Your task to perform on an android device: toggle notification dots Image 0: 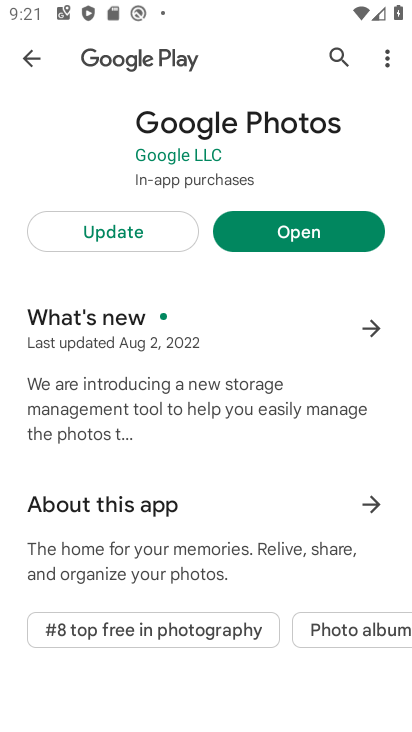
Step 0: click (133, 609)
Your task to perform on an android device: toggle notification dots Image 1: 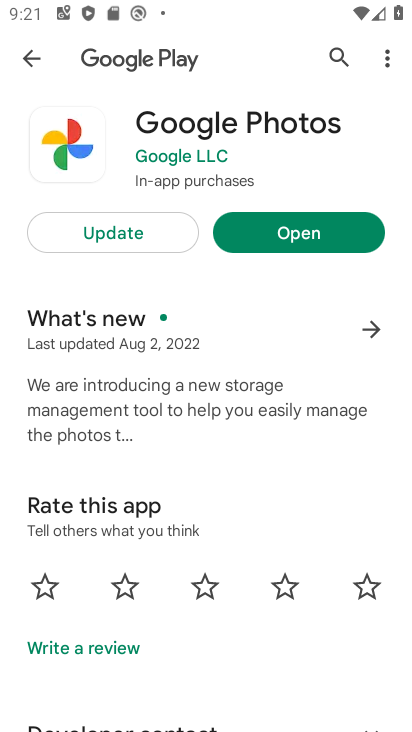
Step 1: press home button
Your task to perform on an android device: toggle notification dots Image 2: 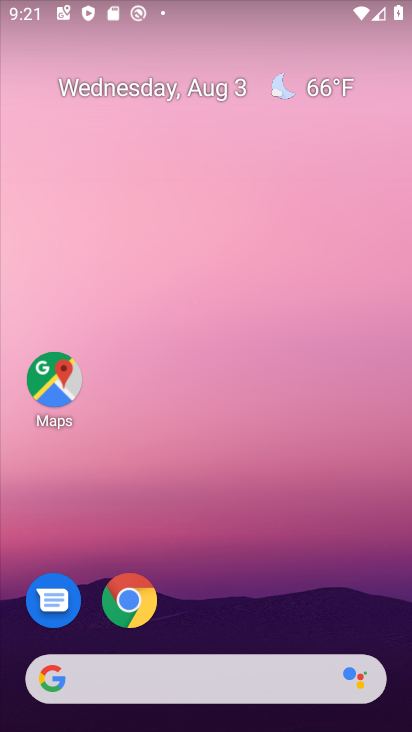
Step 2: drag from (293, 575) to (263, 84)
Your task to perform on an android device: toggle notification dots Image 3: 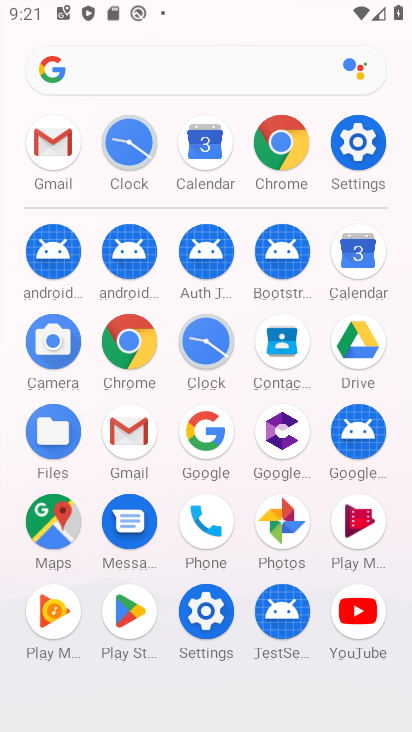
Step 3: click (213, 606)
Your task to perform on an android device: toggle notification dots Image 4: 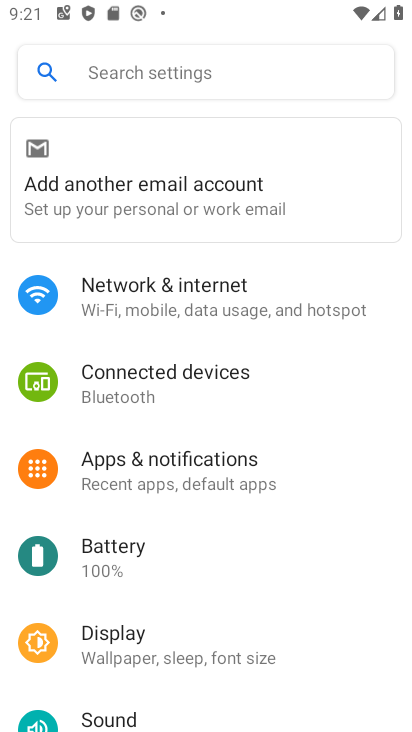
Step 4: click (211, 481)
Your task to perform on an android device: toggle notification dots Image 5: 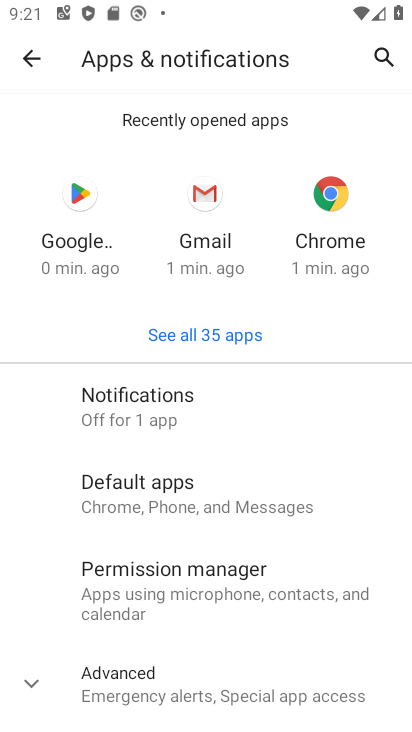
Step 5: click (178, 396)
Your task to perform on an android device: toggle notification dots Image 6: 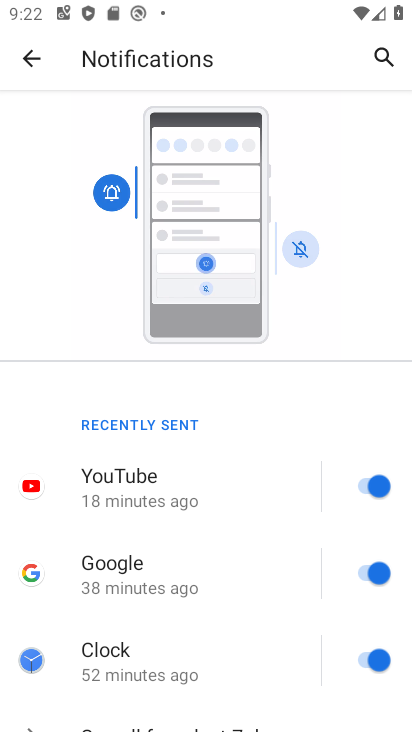
Step 6: drag from (156, 648) to (177, 274)
Your task to perform on an android device: toggle notification dots Image 7: 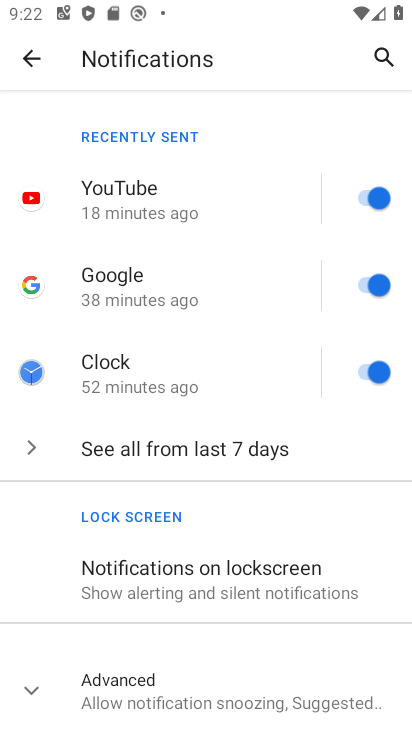
Step 7: drag from (143, 671) to (154, 425)
Your task to perform on an android device: toggle notification dots Image 8: 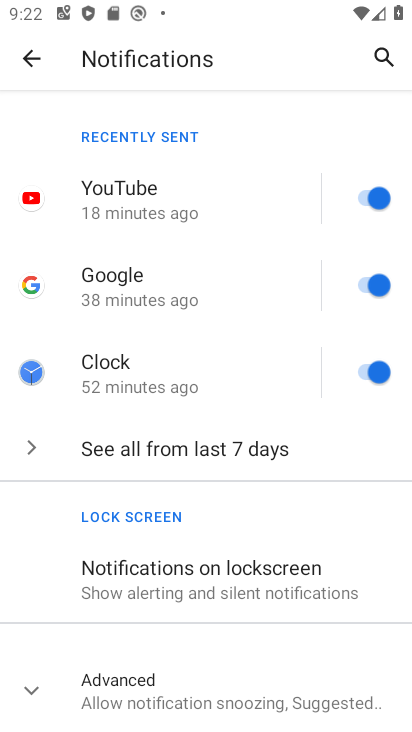
Step 8: click (98, 691)
Your task to perform on an android device: toggle notification dots Image 9: 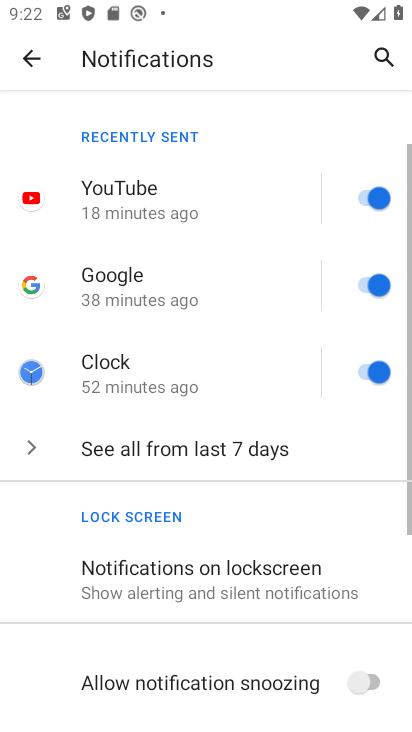
Step 9: drag from (222, 654) to (217, 203)
Your task to perform on an android device: toggle notification dots Image 10: 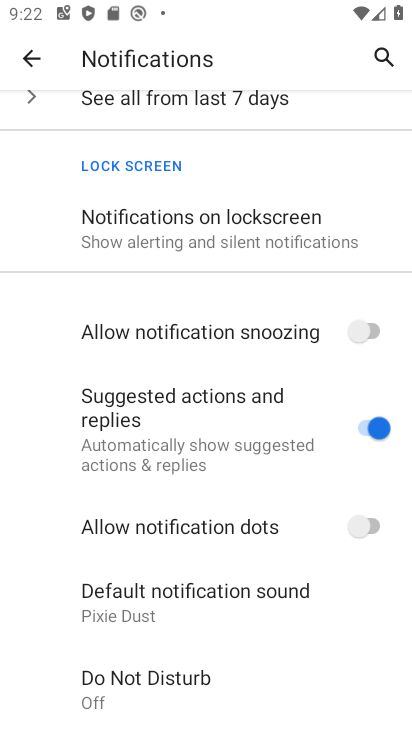
Step 10: click (377, 529)
Your task to perform on an android device: toggle notification dots Image 11: 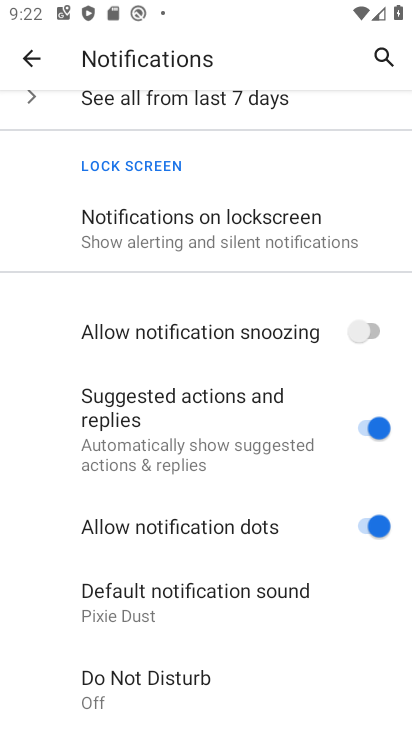
Step 11: task complete